Your task to perform on an android device: Show me the alarms in the clock app Image 0: 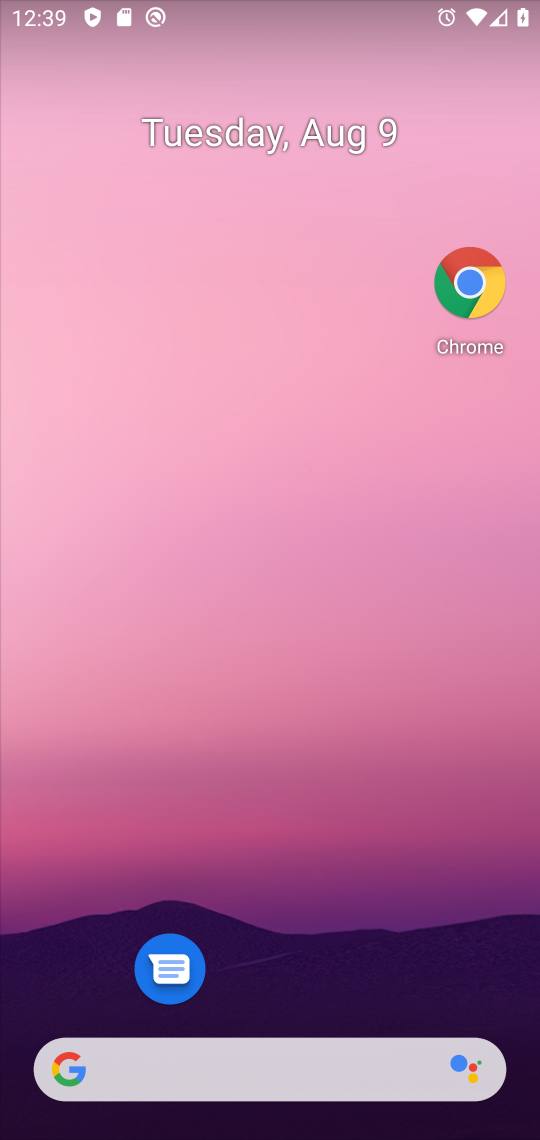
Step 0: drag from (298, 569) to (303, 425)
Your task to perform on an android device: Show me the alarms in the clock app Image 1: 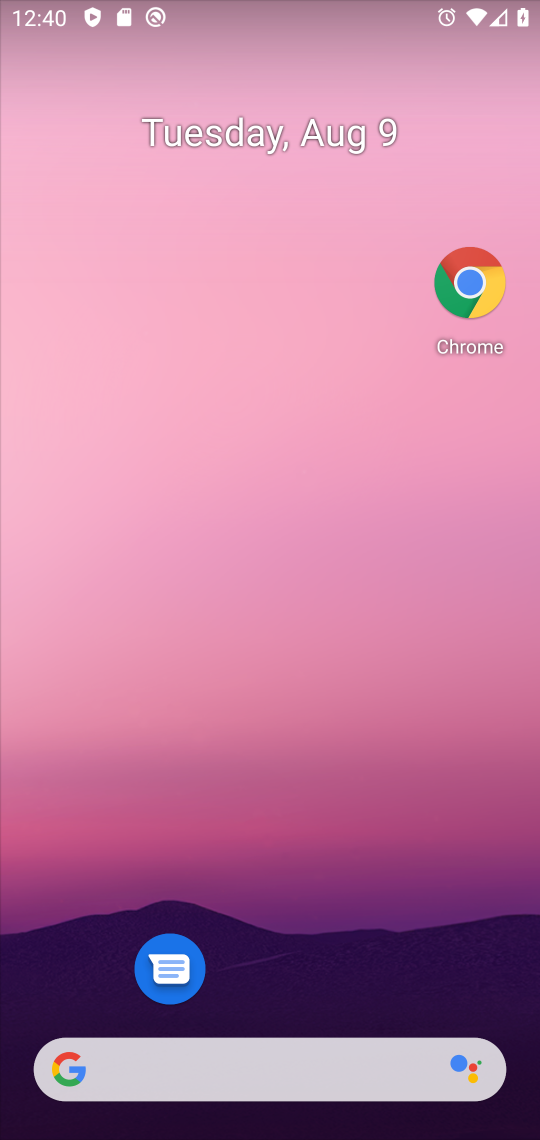
Step 1: drag from (207, 1014) to (404, 386)
Your task to perform on an android device: Show me the alarms in the clock app Image 2: 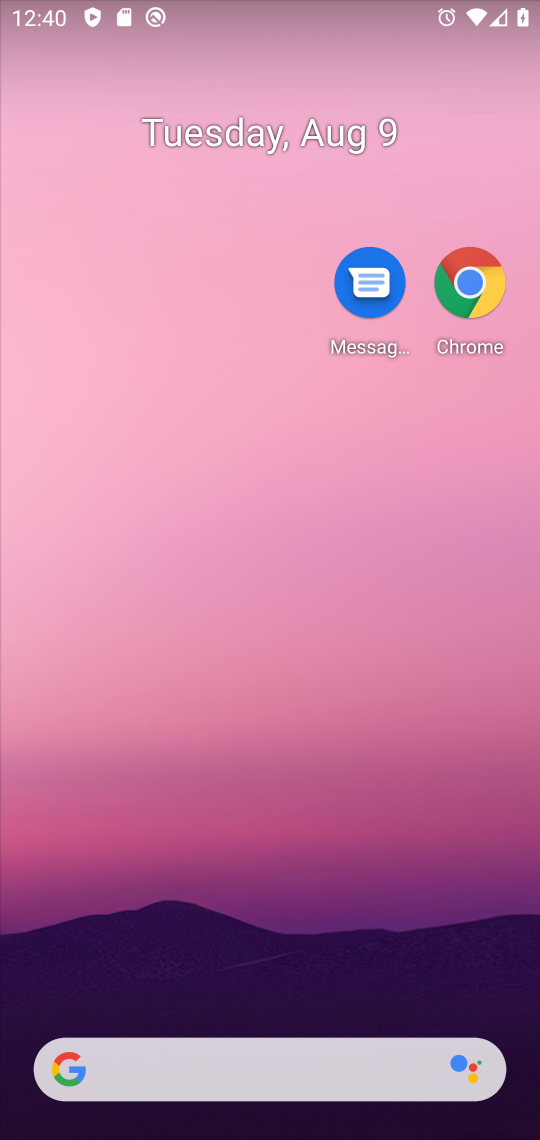
Step 2: drag from (306, 1000) to (432, 486)
Your task to perform on an android device: Show me the alarms in the clock app Image 3: 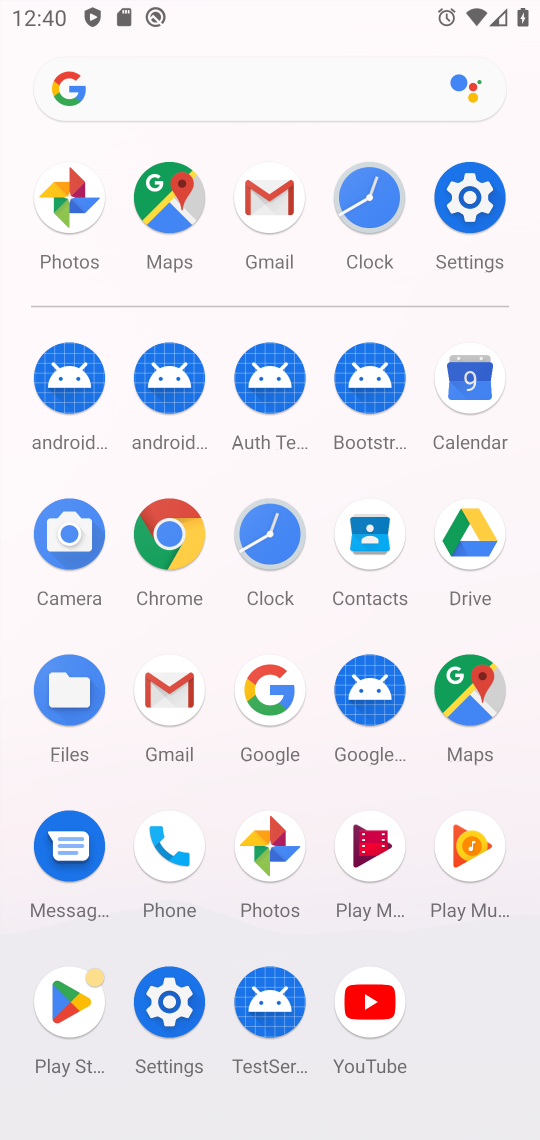
Step 3: click (253, 531)
Your task to perform on an android device: Show me the alarms in the clock app Image 4: 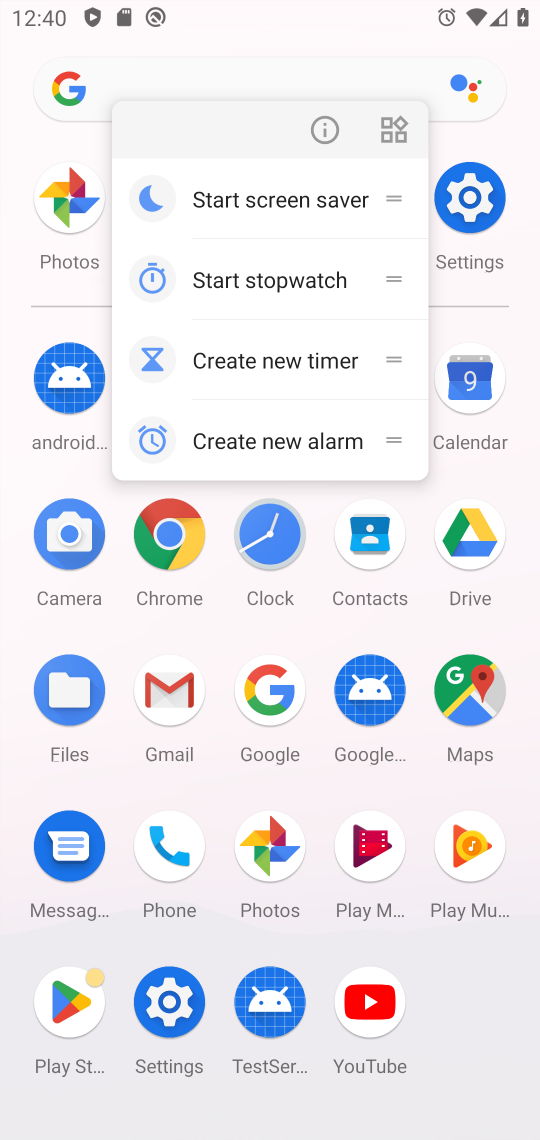
Step 4: click (322, 117)
Your task to perform on an android device: Show me the alarms in the clock app Image 5: 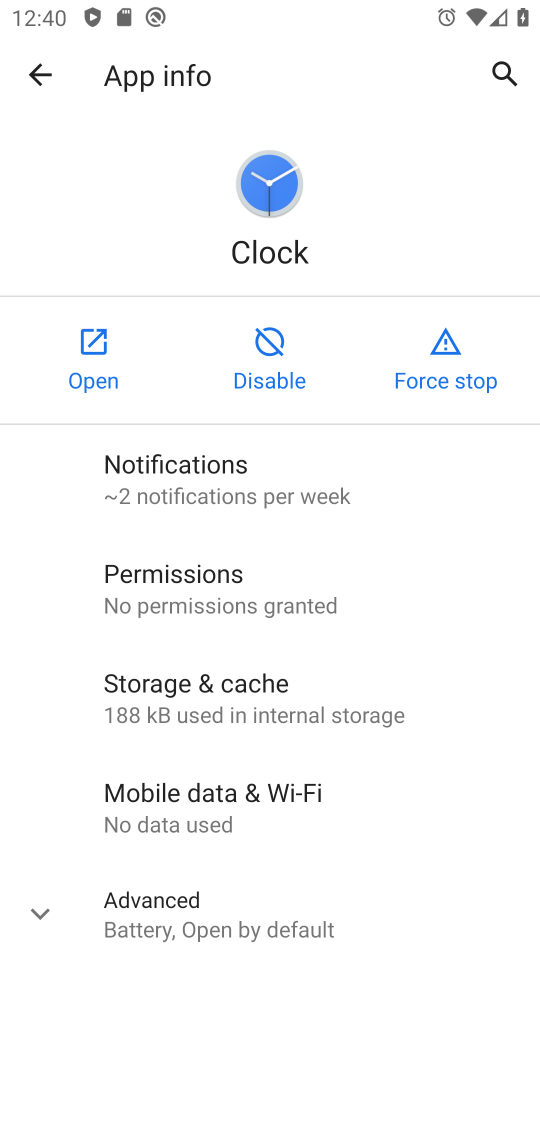
Step 5: click (109, 356)
Your task to perform on an android device: Show me the alarms in the clock app Image 6: 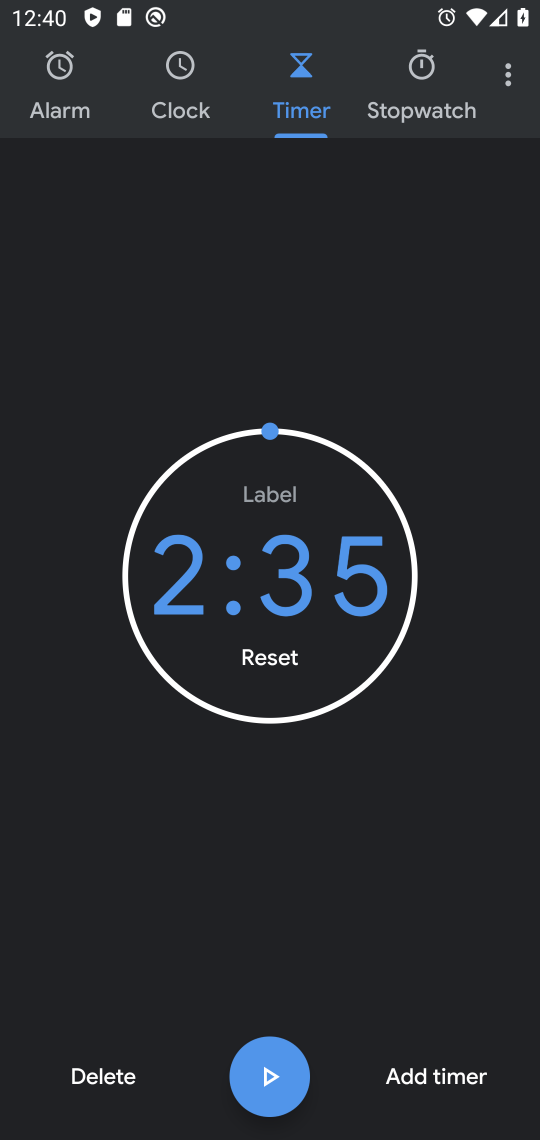
Step 6: click (79, 111)
Your task to perform on an android device: Show me the alarms in the clock app Image 7: 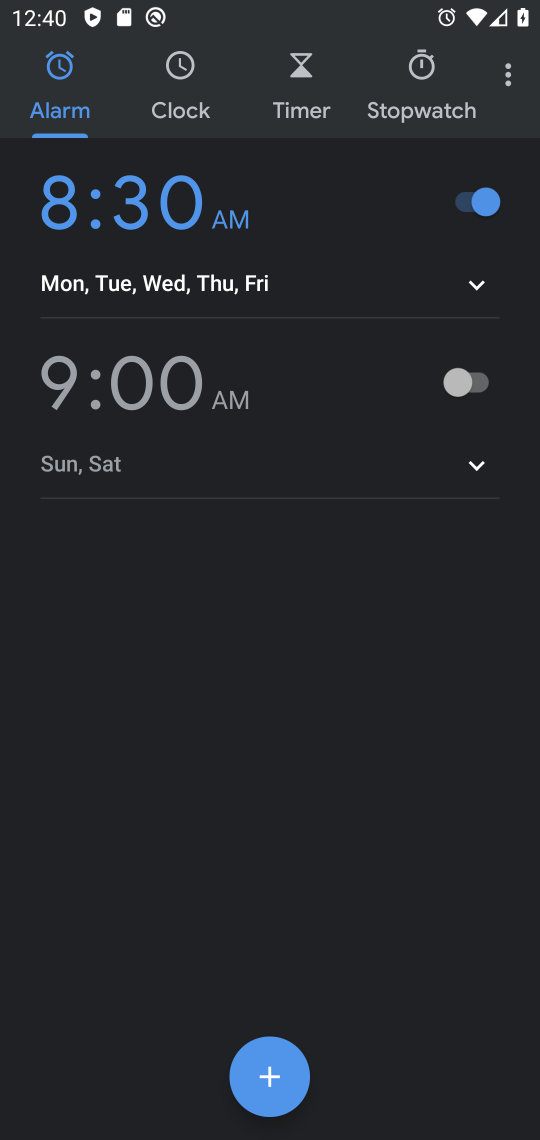
Step 7: task complete